Your task to perform on an android device: show emergency info Image 0: 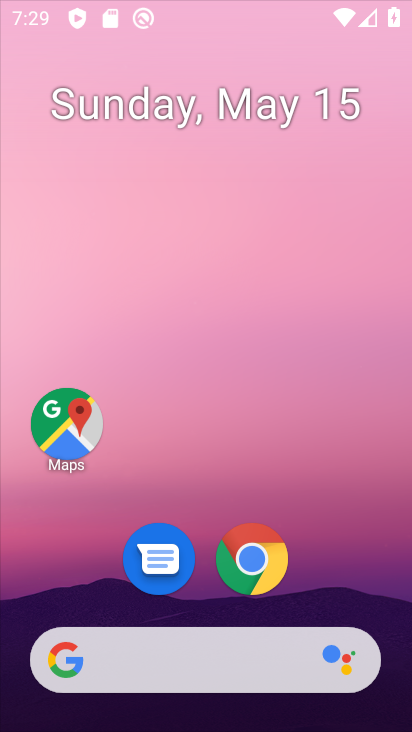
Step 0: drag from (353, 574) to (363, 119)
Your task to perform on an android device: show emergency info Image 1: 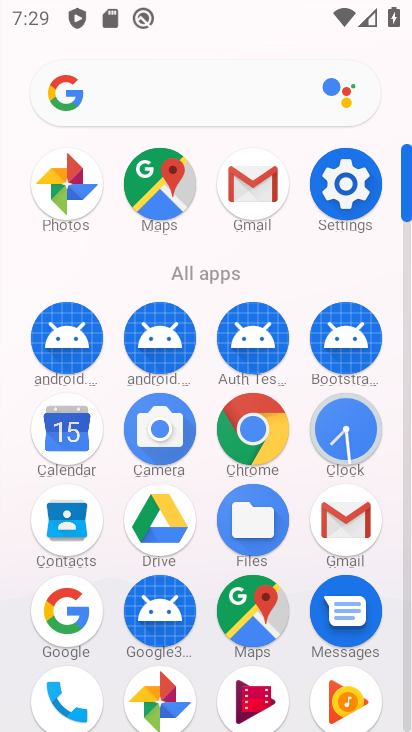
Step 1: click (351, 155)
Your task to perform on an android device: show emergency info Image 2: 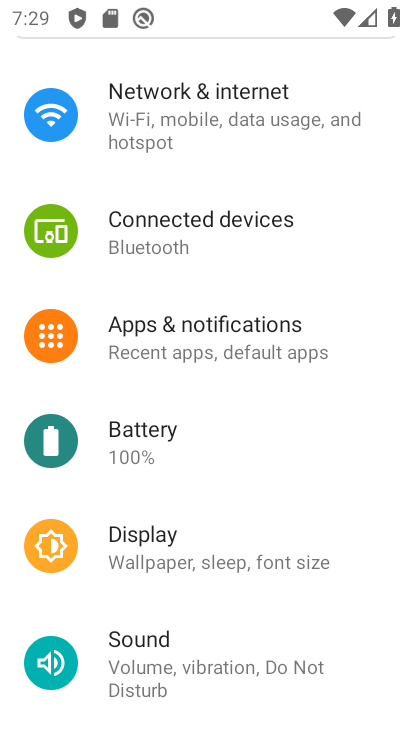
Step 2: drag from (254, 527) to (313, 125)
Your task to perform on an android device: show emergency info Image 3: 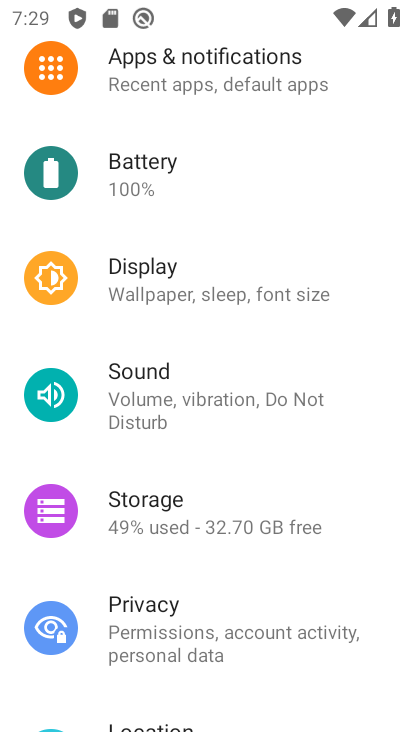
Step 3: drag from (250, 582) to (302, 239)
Your task to perform on an android device: show emergency info Image 4: 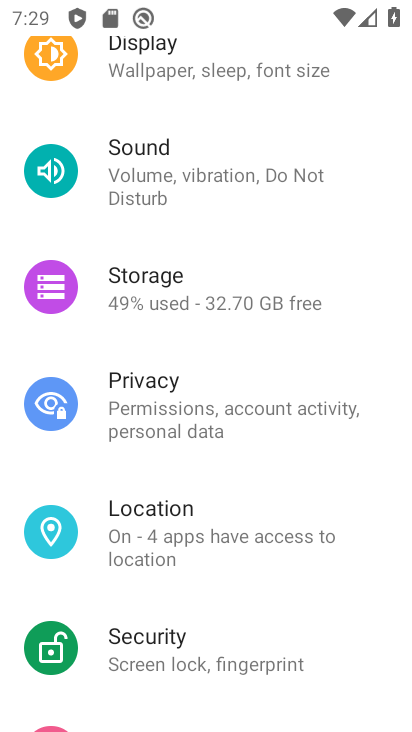
Step 4: drag from (269, 652) to (308, 276)
Your task to perform on an android device: show emergency info Image 5: 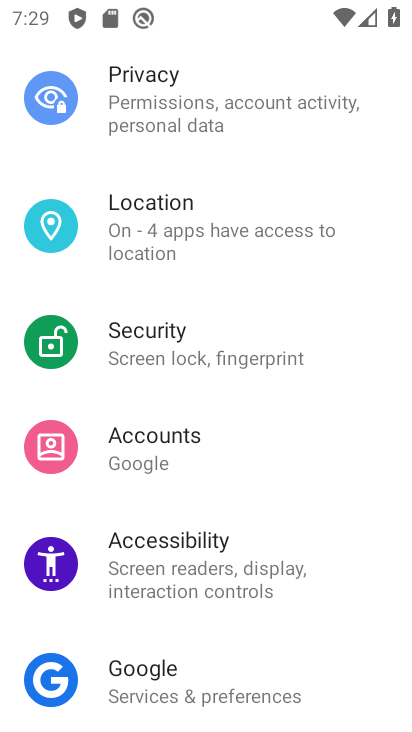
Step 5: drag from (190, 717) to (281, 150)
Your task to perform on an android device: show emergency info Image 6: 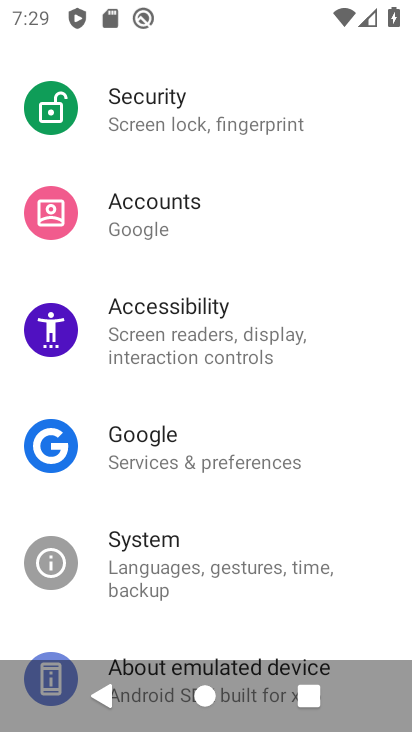
Step 6: drag from (252, 585) to (309, 288)
Your task to perform on an android device: show emergency info Image 7: 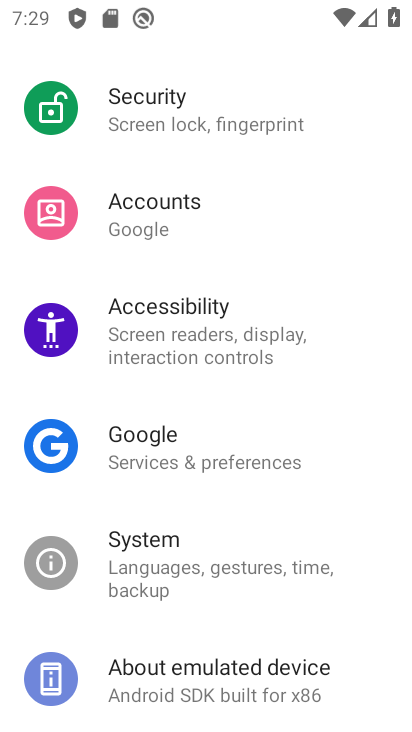
Step 7: drag from (264, 558) to (276, 435)
Your task to perform on an android device: show emergency info Image 8: 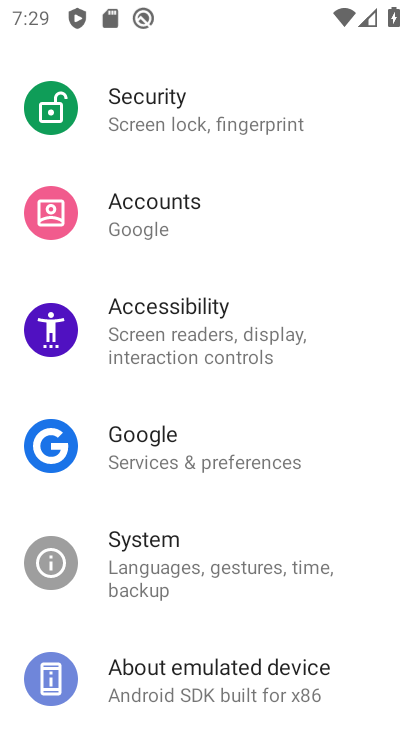
Step 8: click (246, 678)
Your task to perform on an android device: show emergency info Image 9: 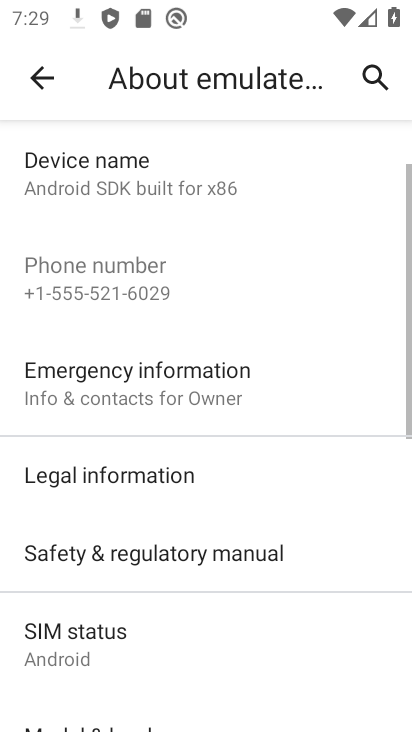
Step 9: click (201, 380)
Your task to perform on an android device: show emergency info Image 10: 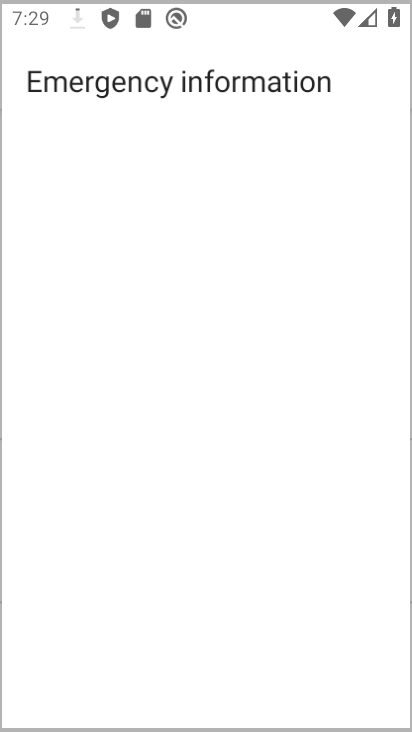
Step 10: task complete